Your task to perform on an android device: Find coffee shops on Maps Image 0: 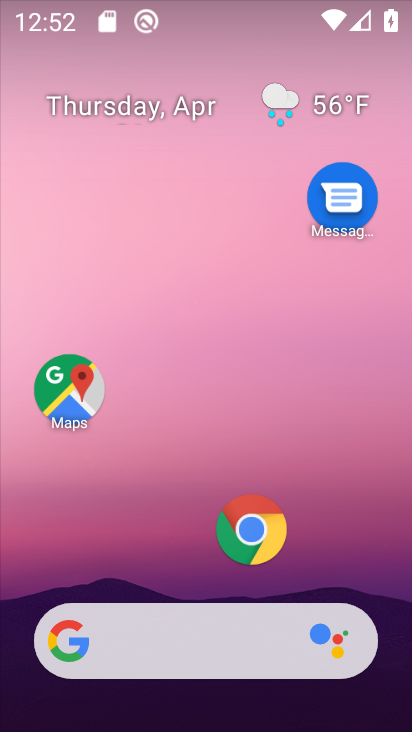
Step 0: click (90, 376)
Your task to perform on an android device: Find coffee shops on Maps Image 1: 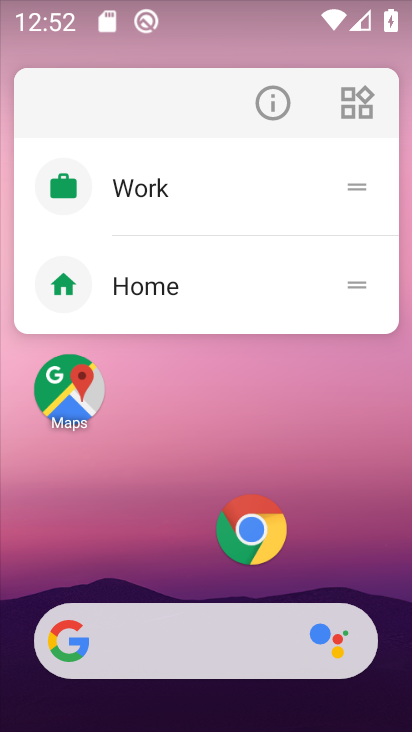
Step 1: click (62, 397)
Your task to perform on an android device: Find coffee shops on Maps Image 2: 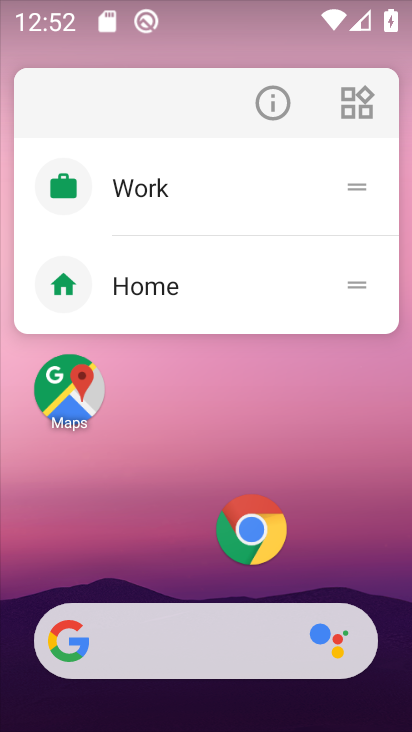
Step 2: click (79, 398)
Your task to perform on an android device: Find coffee shops on Maps Image 3: 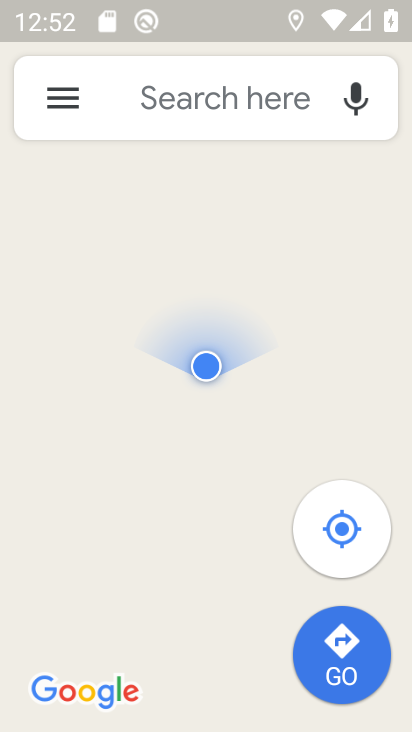
Step 3: click (168, 129)
Your task to perform on an android device: Find coffee shops on Maps Image 4: 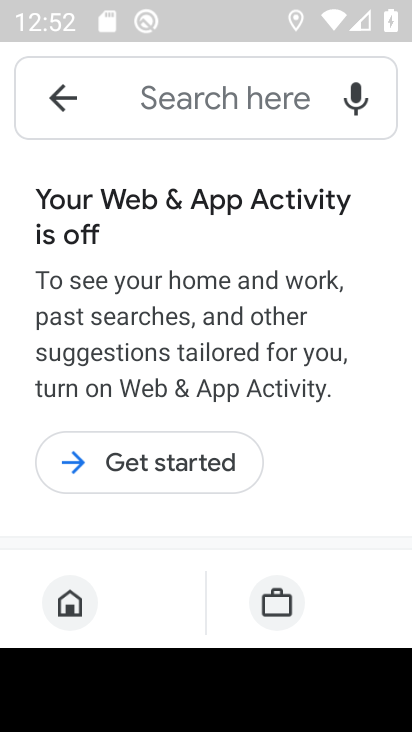
Step 4: type "coffee shops "
Your task to perform on an android device: Find coffee shops on Maps Image 5: 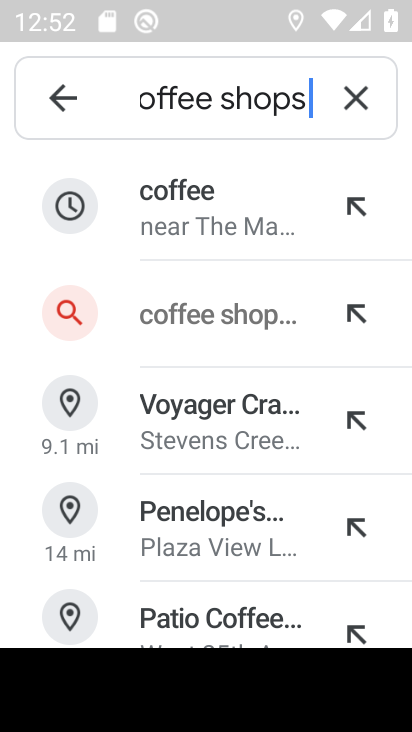
Step 5: click (229, 322)
Your task to perform on an android device: Find coffee shops on Maps Image 6: 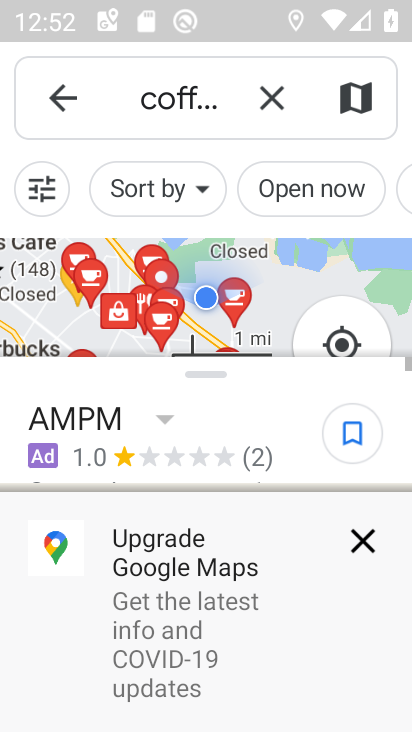
Step 6: click (364, 541)
Your task to perform on an android device: Find coffee shops on Maps Image 7: 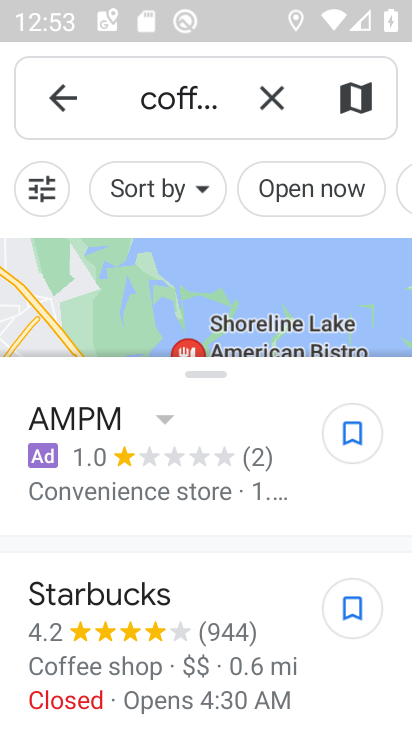
Step 7: task complete